Your task to perform on an android device: Open accessibility settings Image 0: 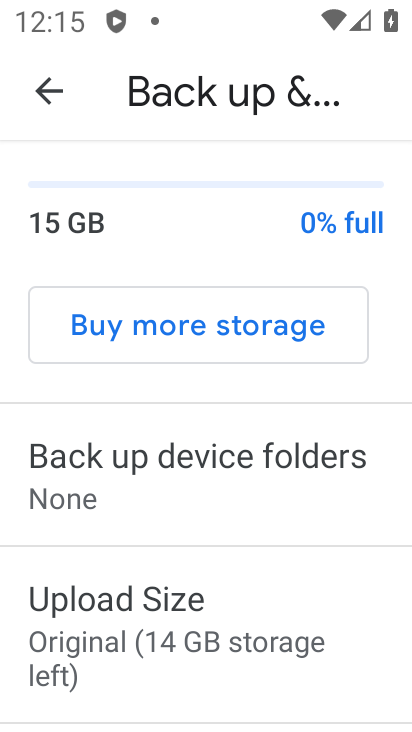
Step 0: press home button
Your task to perform on an android device: Open accessibility settings Image 1: 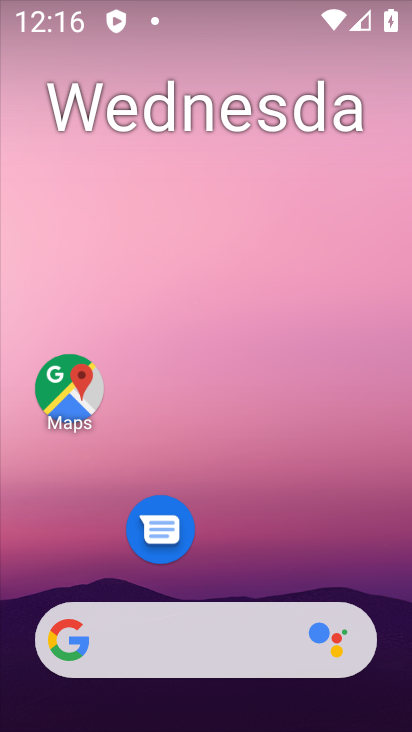
Step 1: drag from (196, 567) to (373, 424)
Your task to perform on an android device: Open accessibility settings Image 2: 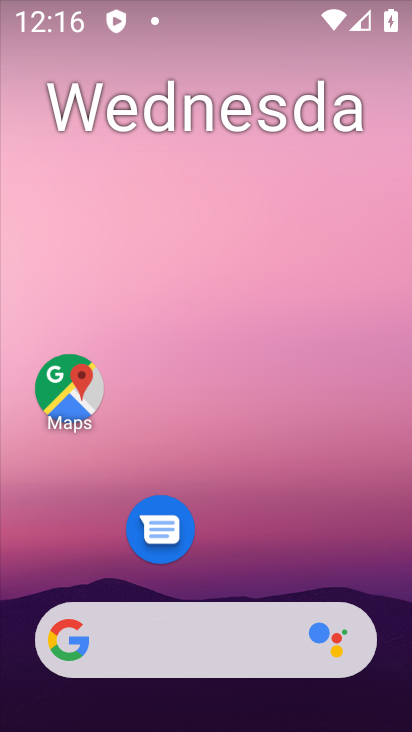
Step 2: drag from (237, 593) to (408, 67)
Your task to perform on an android device: Open accessibility settings Image 3: 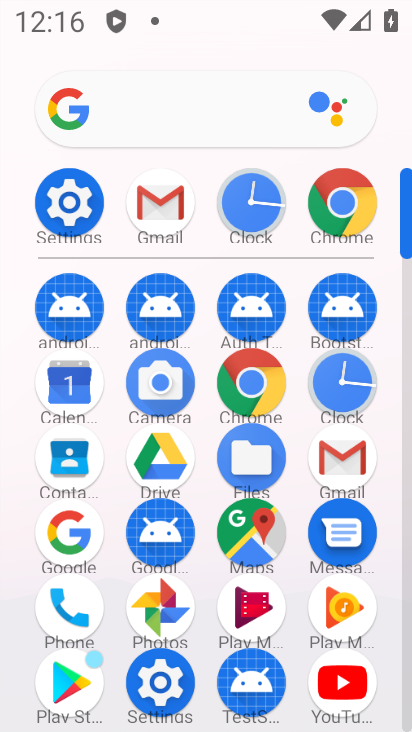
Step 3: click (85, 212)
Your task to perform on an android device: Open accessibility settings Image 4: 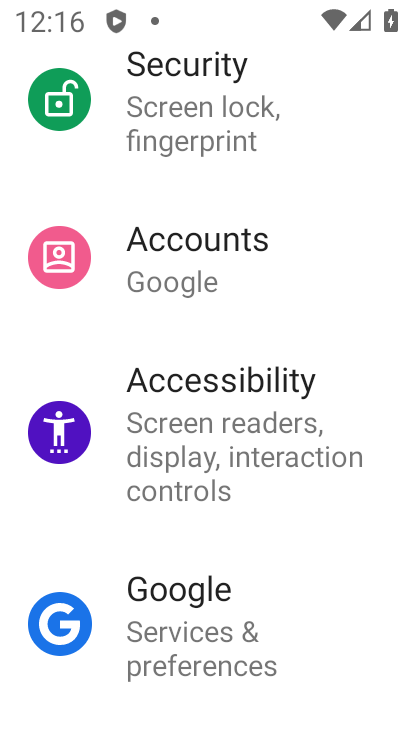
Step 4: click (209, 424)
Your task to perform on an android device: Open accessibility settings Image 5: 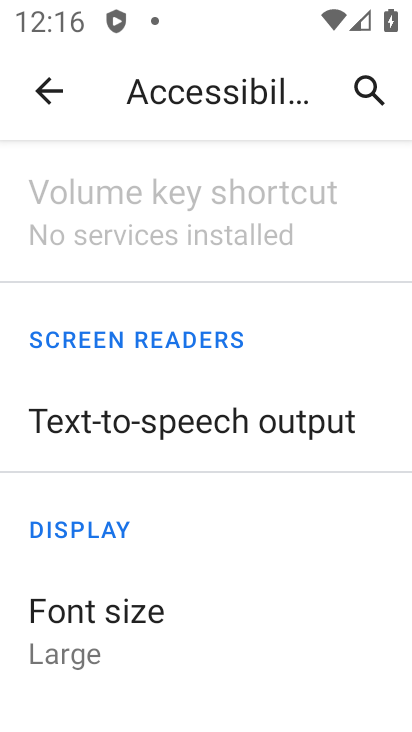
Step 5: task complete